Your task to perform on an android device: toggle notification dots Image 0: 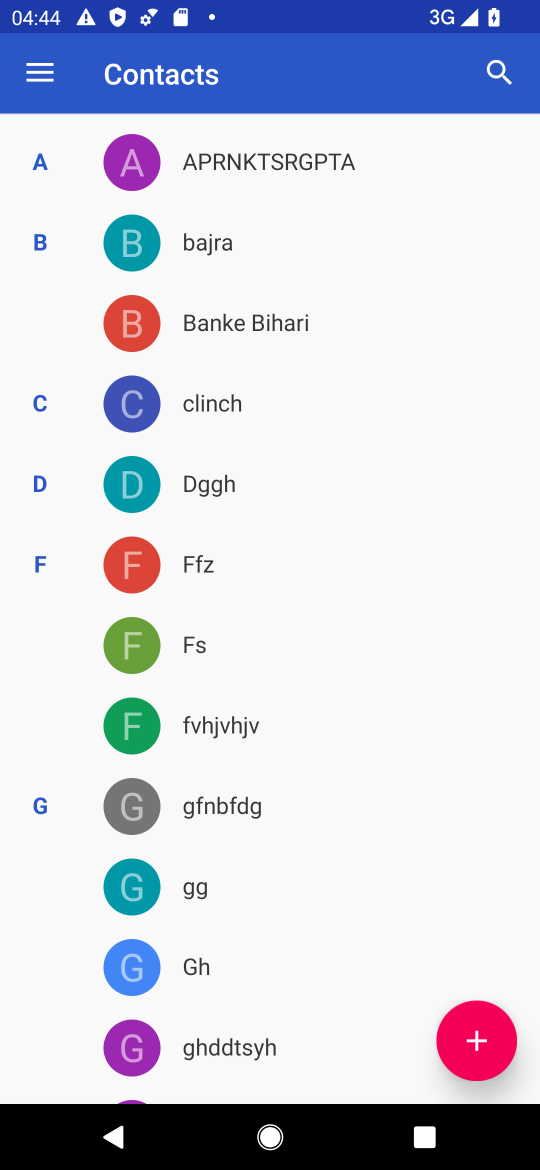
Step 0: press home button
Your task to perform on an android device: toggle notification dots Image 1: 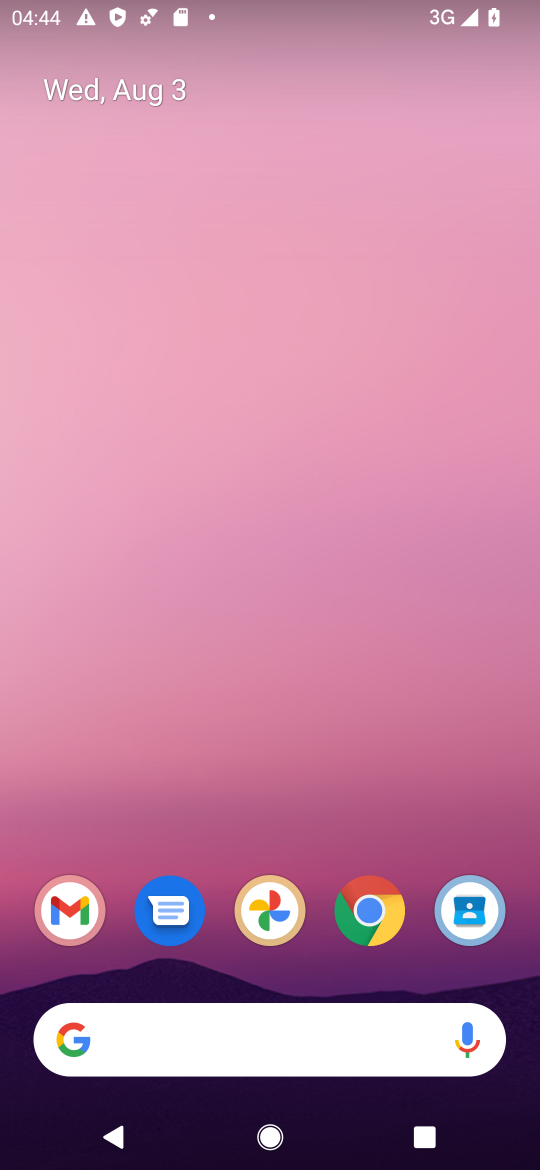
Step 1: drag from (329, 841) to (352, 139)
Your task to perform on an android device: toggle notification dots Image 2: 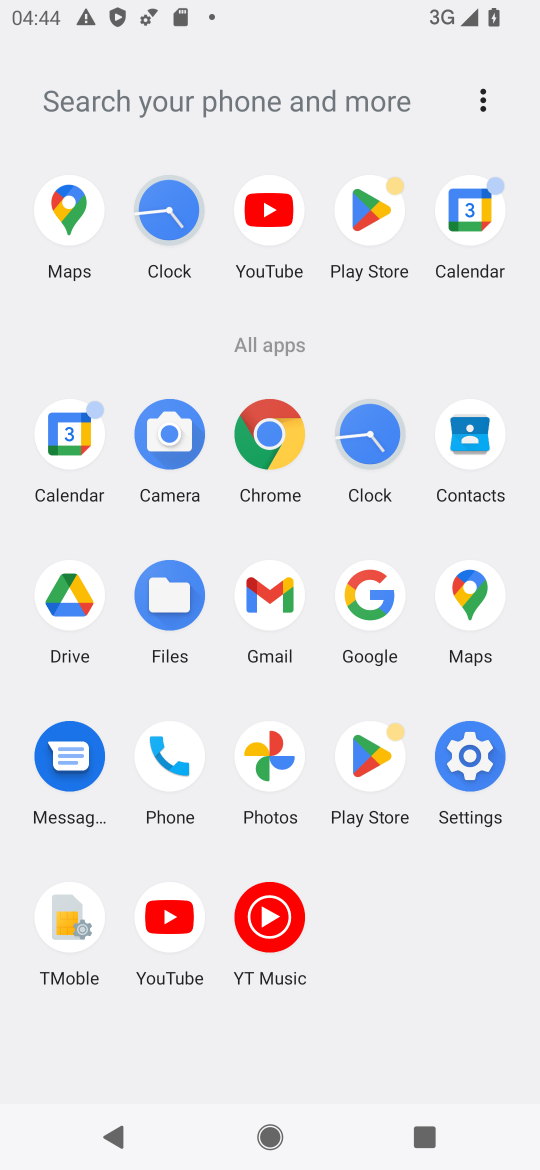
Step 2: click (465, 740)
Your task to perform on an android device: toggle notification dots Image 3: 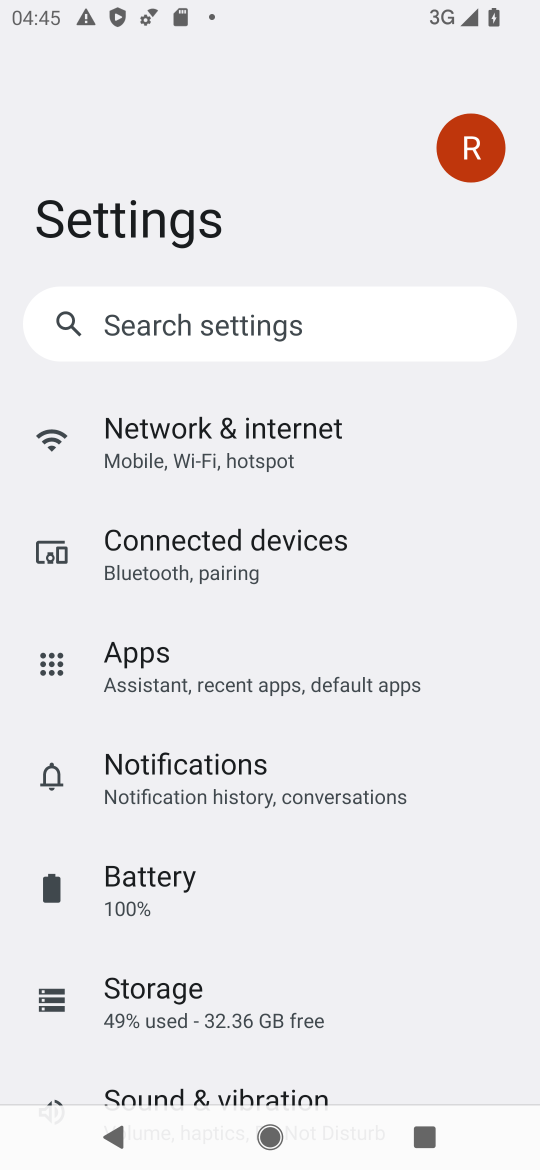
Step 3: click (251, 772)
Your task to perform on an android device: toggle notification dots Image 4: 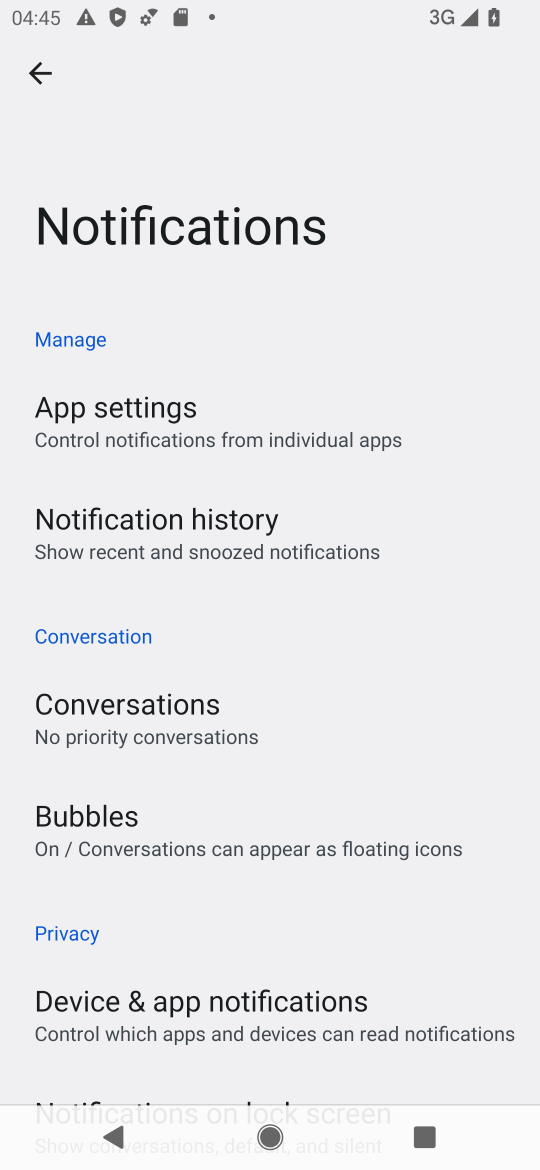
Step 4: drag from (222, 974) to (251, 133)
Your task to perform on an android device: toggle notification dots Image 5: 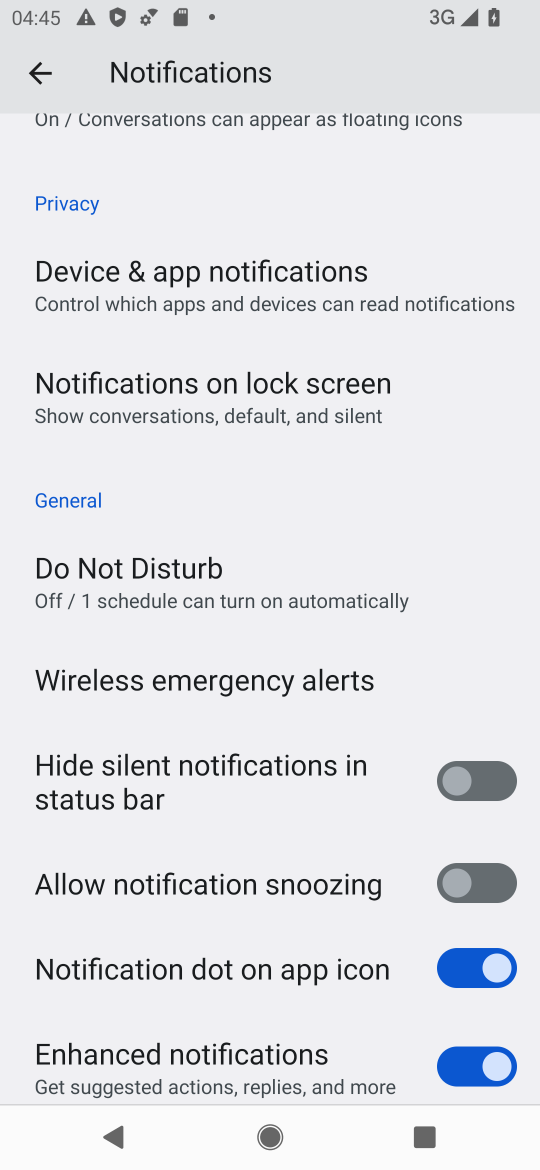
Step 5: drag from (263, 1006) to (263, 248)
Your task to perform on an android device: toggle notification dots Image 6: 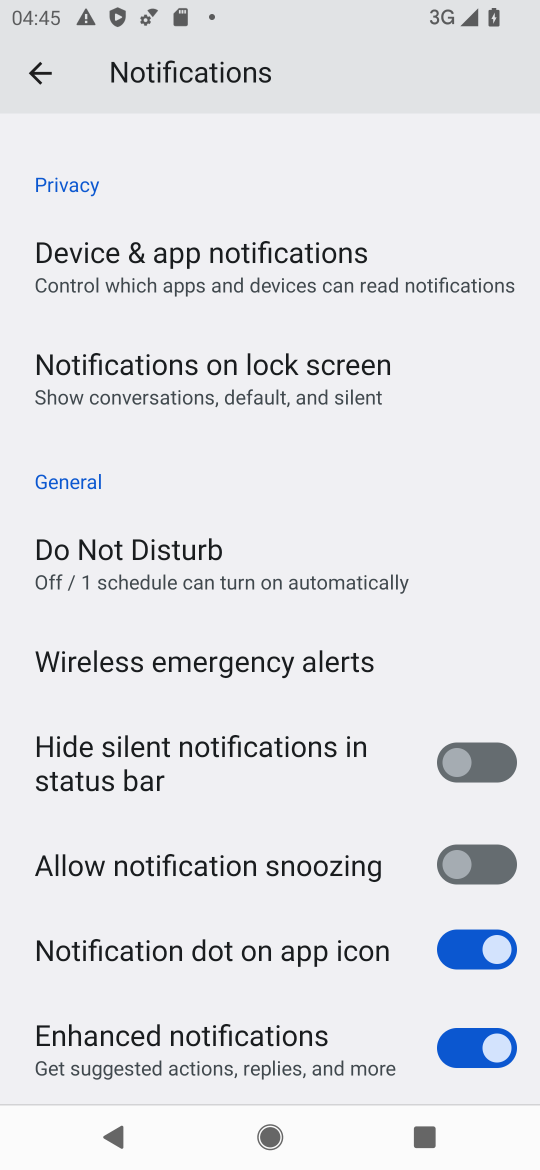
Step 6: drag from (200, 416) to (276, 1042)
Your task to perform on an android device: toggle notification dots Image 7: 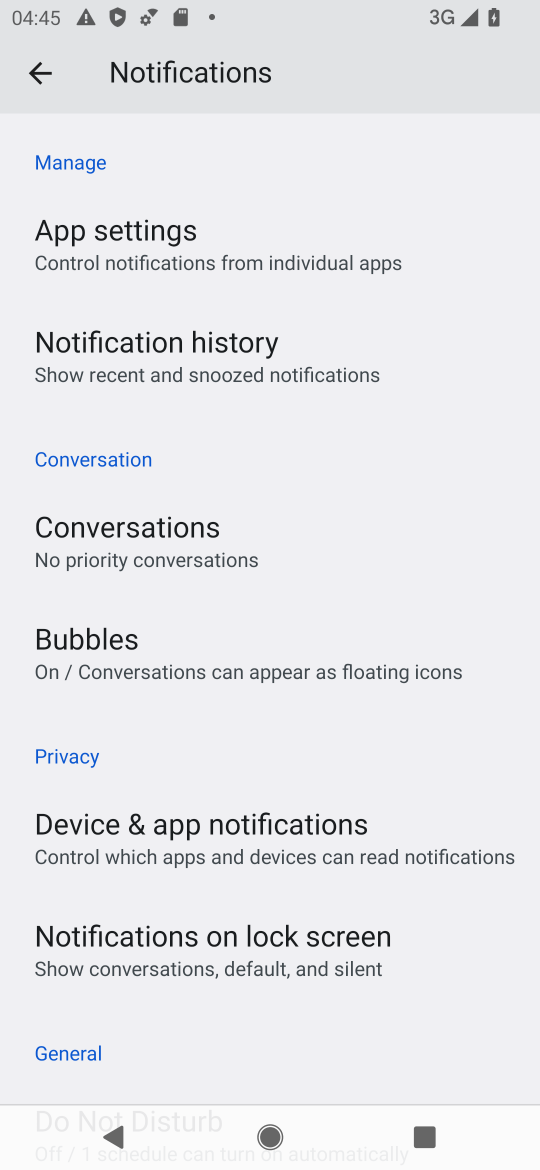
Step 7: drag from (216, 290) to (203, 834)
Your task to perform on an android device: toggle notification dots Image 8: 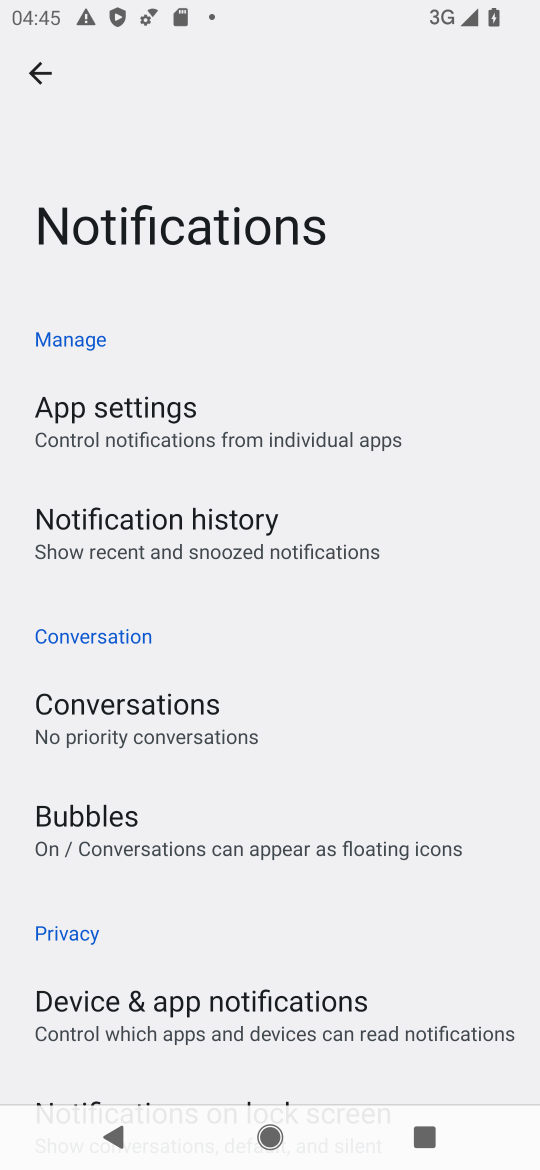
Step 8: drag from (249, 981) to (271, 598)
Your task to perform on an android device: toggle notification dots Image 9: 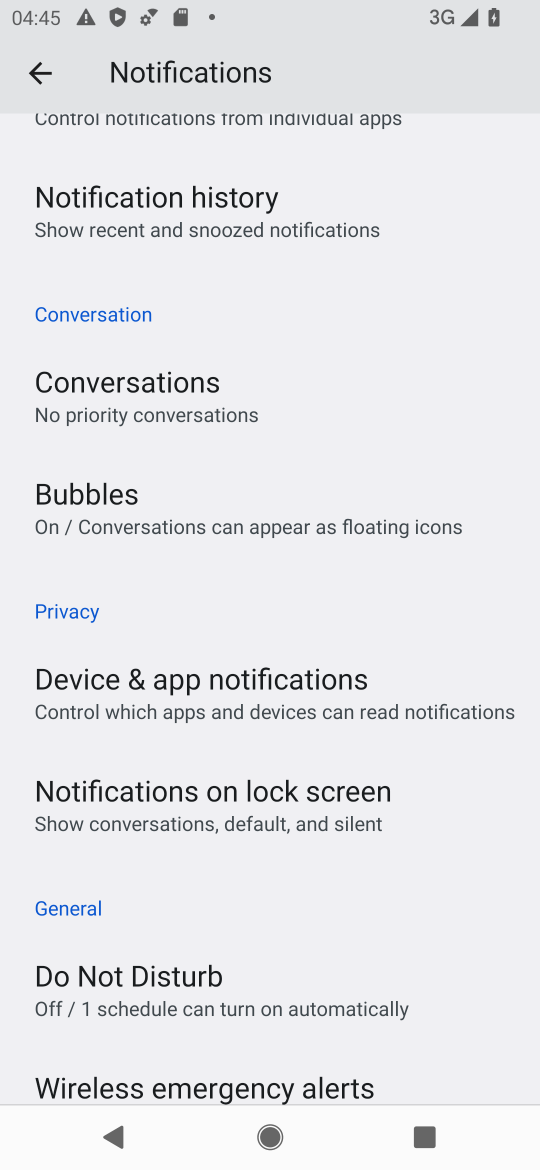
Step 9: drag from (270, 1036) to (319, 593)
Your task to perform on an android device: toggle notification dots Image 10: 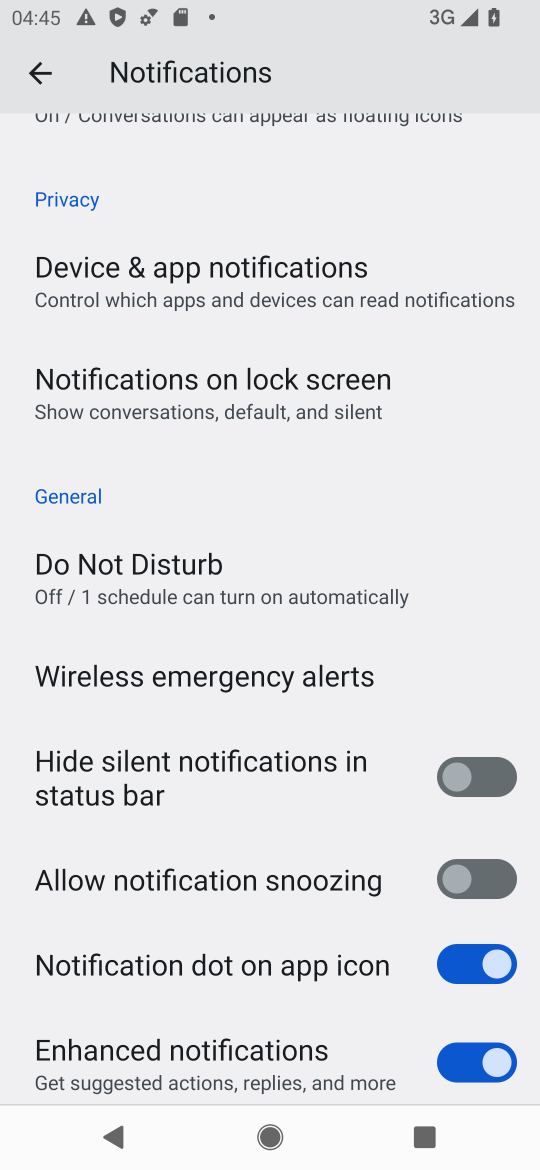
Step 10: click (470, 957)
Your task to perform on an android device: toggle notification dots Image 11: 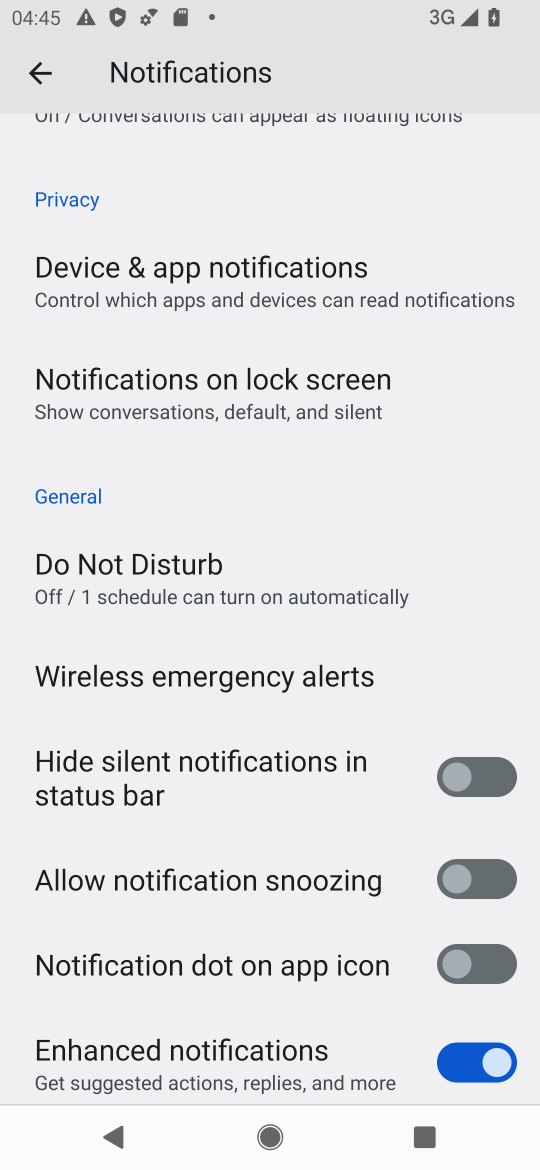
Step 11: task complete